Your task to perform on an android device: star an email in the gmail app Image 0: 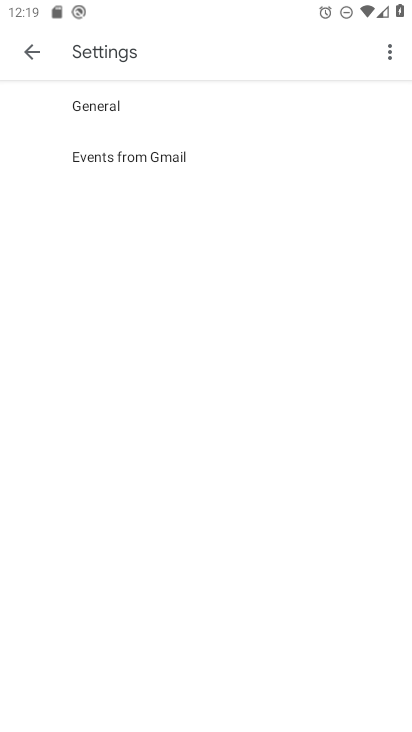
Step 0: press home button
Your task to perform on an android device: star an email in the gmail app Image 1: 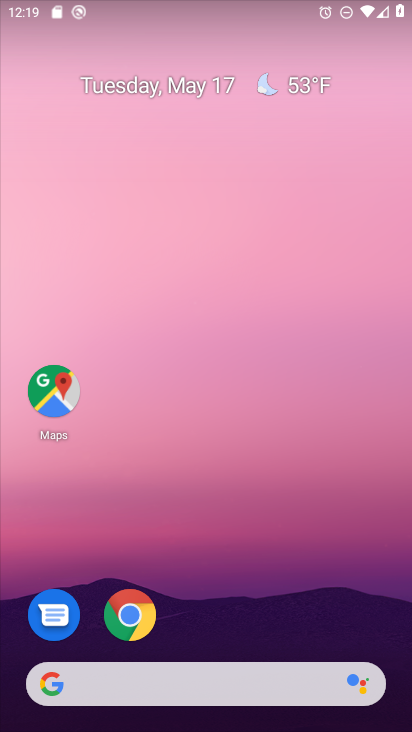
Step 1: drag from (194, 663) to (167, 380)
Your task to perform on an android device: star an email in the gmail app Image 2: 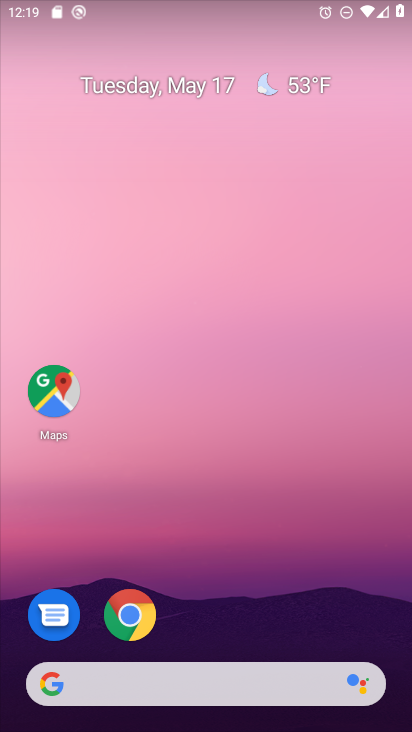
Step 2: drag from (233, 678) to (263, 267)
Your task to perform on an android device: star an email in the gmail app Image 3: 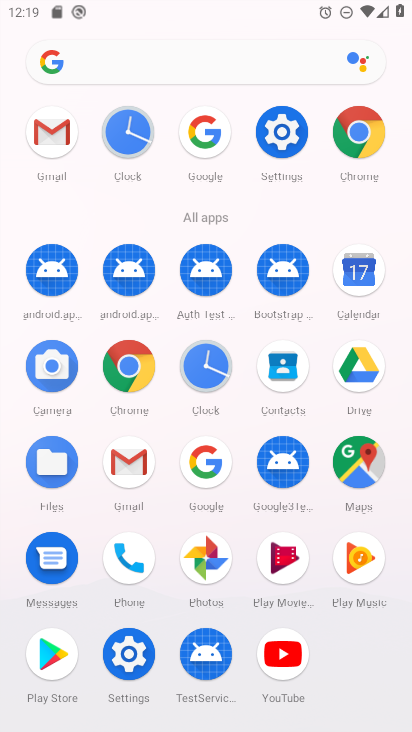
Step 3: click (129, 473)
Your task to perform on an android device: star an email in the gmail app Image 4: 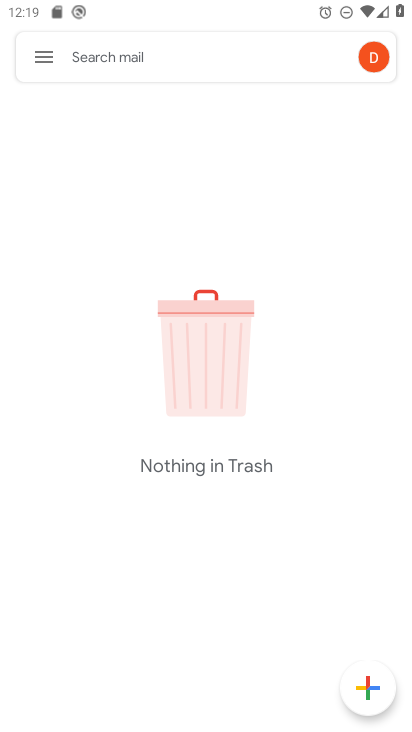
Step 4: click (44, 69)
Your task to perform on an android device: star an email in the gmail app Image 5: 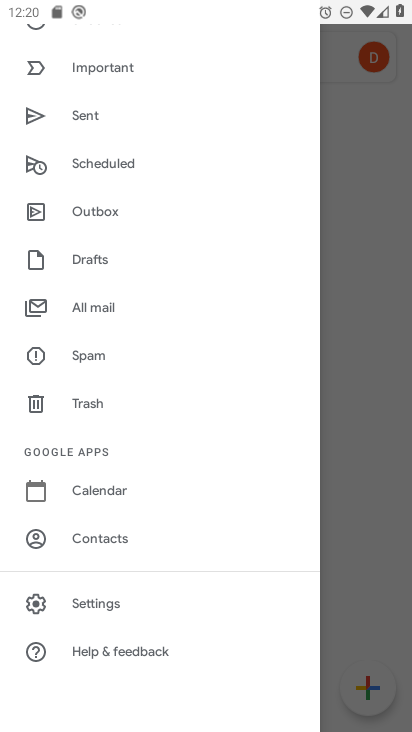
Step 5: click (101, 302)
Your task to perform on an android device: star an email in the gmail app Image 6: 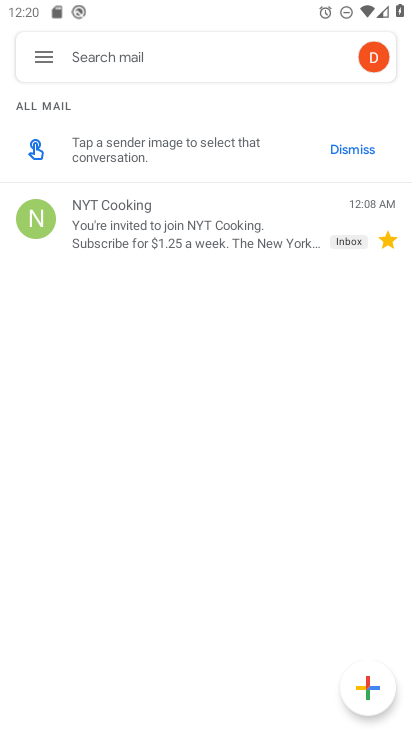
Step 6: click (392, 239)
Your task to perform on an android device: star an email in the gmail app Image 7: 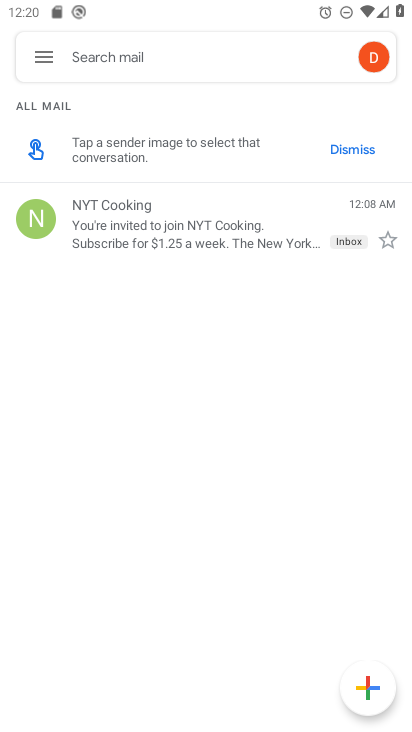
Step 7: click (392, 239)
Your task to perform on an android device: star an email in the gmail app Image 8: 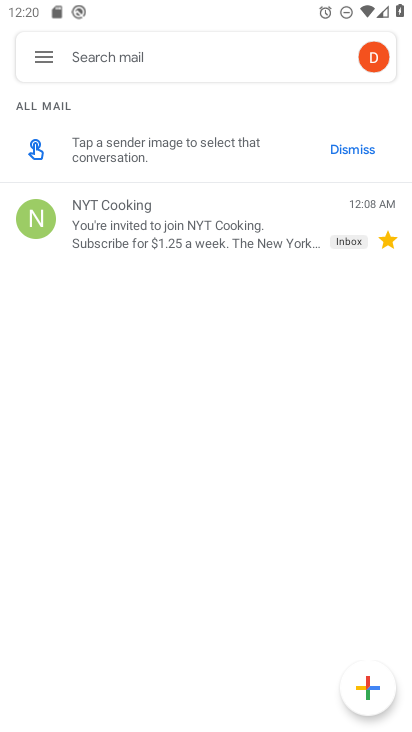
Step 8: task complete